Your task to perform on an android device: visit the assistant section in the google photos Image 0: 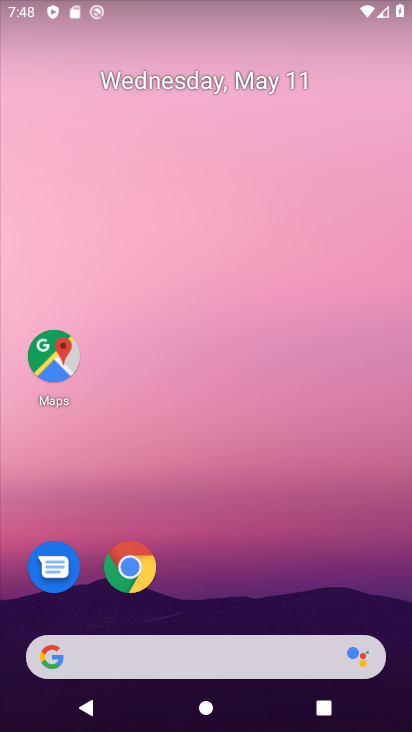
Step 0: drag from (191, 514) to (250, 179)
Your task to perform on an android device: visit the assistant section in the google photos Image 1: 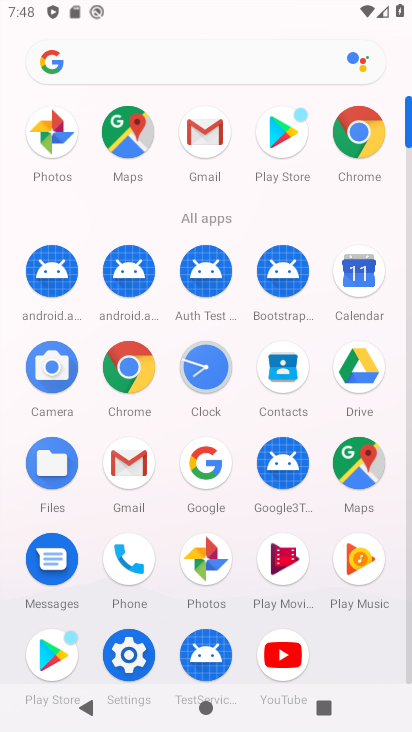
Step 1: click (207, 562)
Your task to perform on an android device: visit the assistant section in the google photos Image 2: 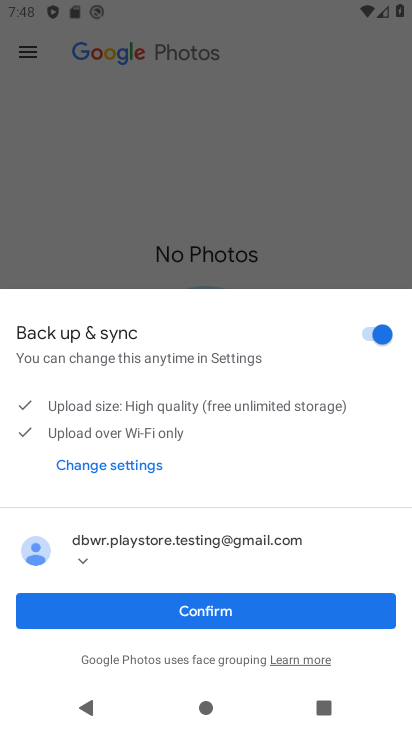
Step 2: click (208, 591)
Your task to perform on an android device: visit the assistant section in the google photos Image 3: 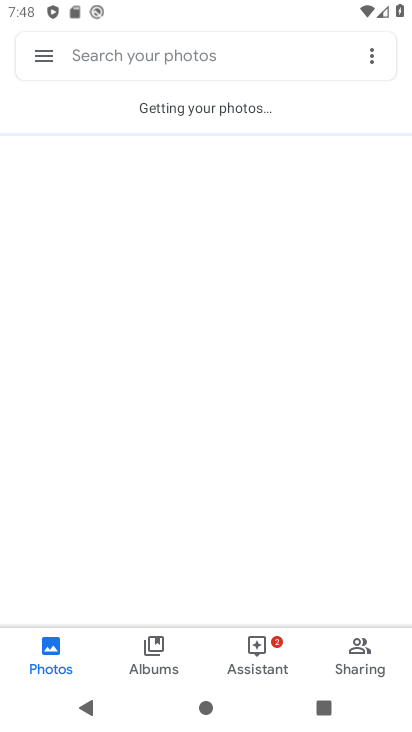
Step 3: click (281, 652)
Your task to perform on an android device: visit the assistant section in the google photos Image 4: 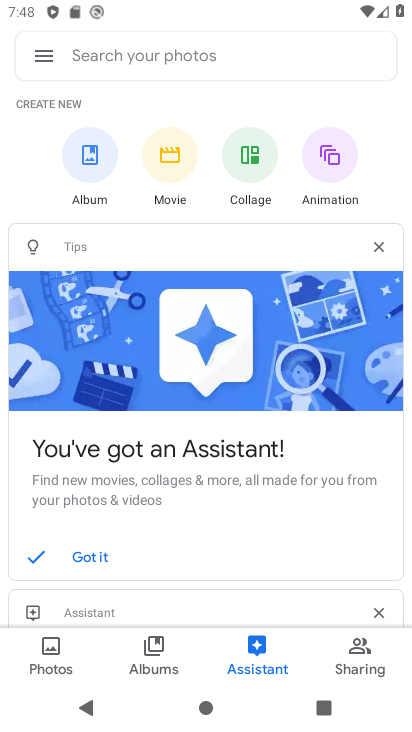
Step 4: task complete